Your task to perform on an android device: Do I have any events tomorrow? Image 0: 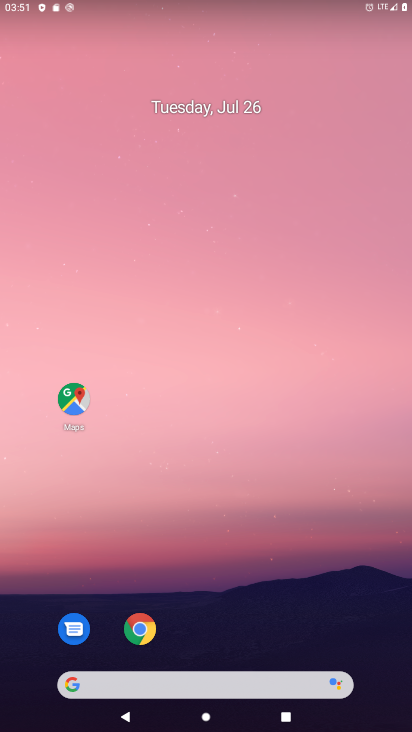
Step 0: drag from (214, 616) to (237, 0)
Your task to perform on an android device: Do I have any events tomorrow? Image 1: 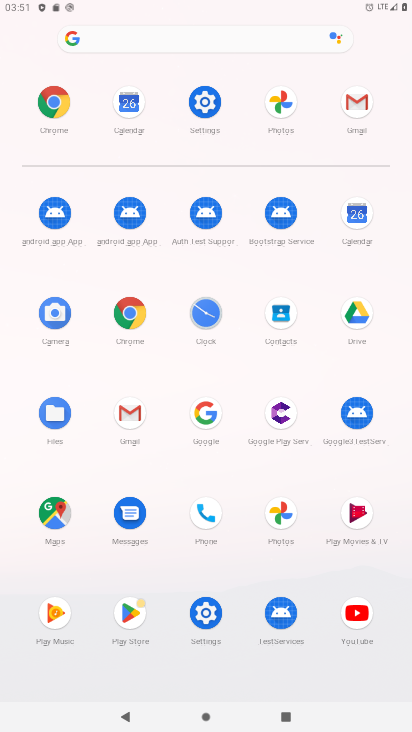
Step 1: click (357, 217)
Your task to perform on an android device: Do I have any events tomorrow? Image 2: 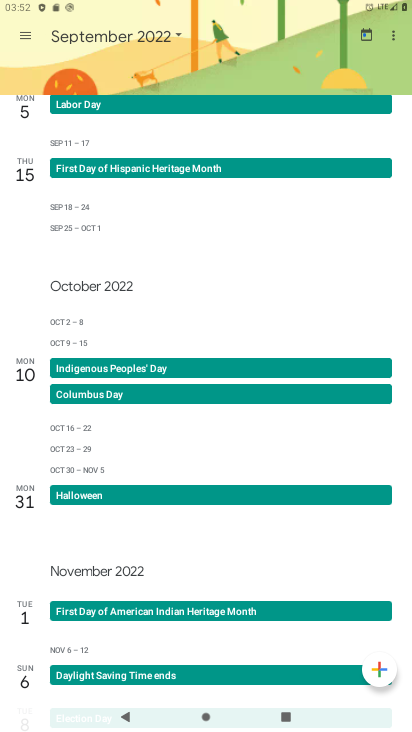
Step 2: click (113, 35)
Your task to perform on an android device: Do I have any events tomorrow? Image 3: 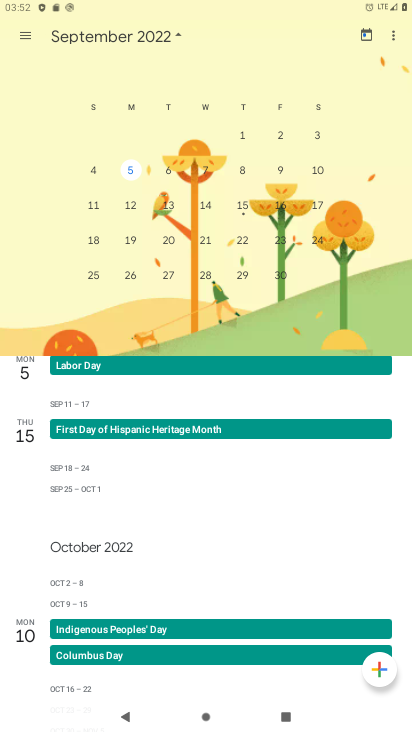
Step 3: drag from (7, 221) to (391, 238)
Your task to perform on an android device: Do I have any events tomorrow? Image 4: 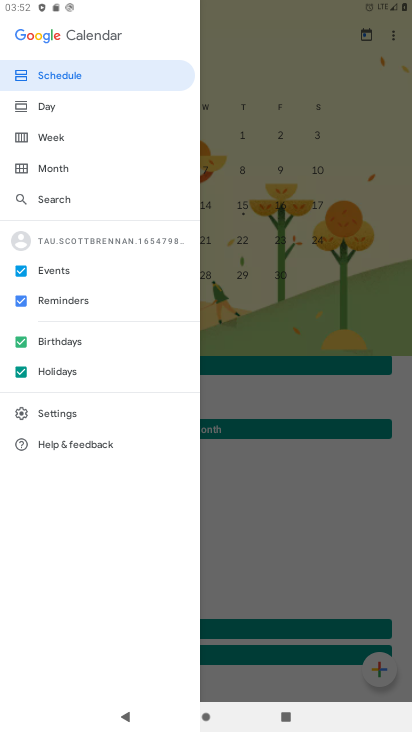
Step 4: click (255, 60)
Your task to perform on an android device: Do I have any events tomorrow? Image 5: 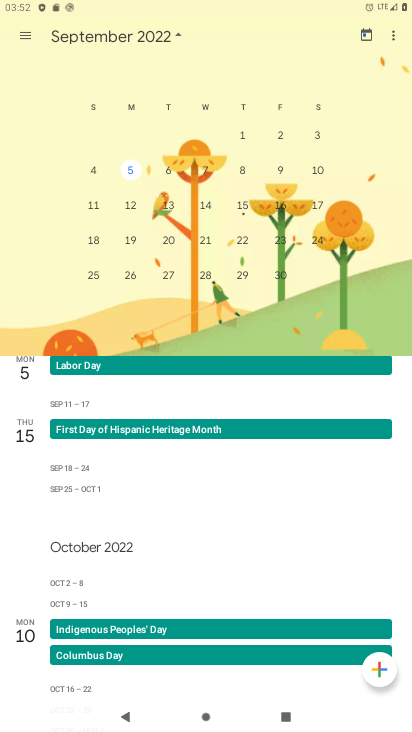
Step 5: drag from (126, 207) to (374, 214)
Your task to perform on an android device: Do I have any events tomorrow? Image 6: 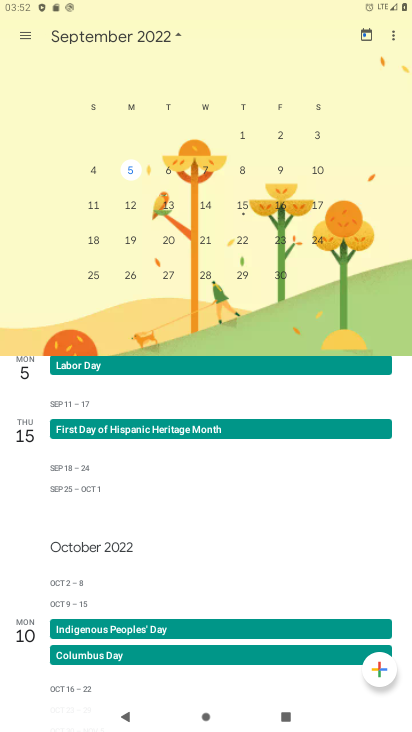
Step 6: drag from (85, 209) to (392, 246)
Your task to perform on an android device: Do I have any events tomorrow? Image 7: 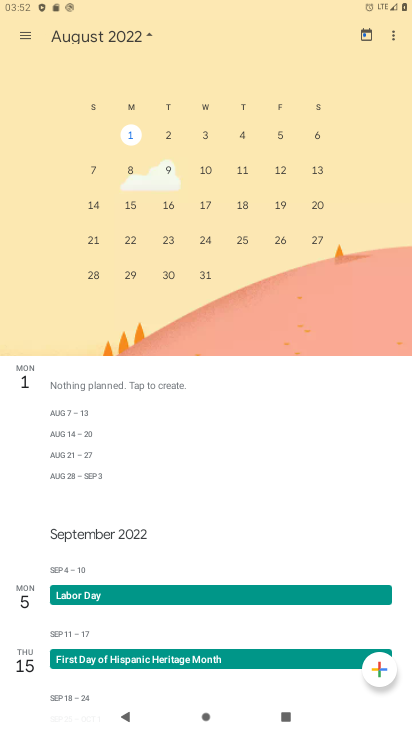
Step 7: drag from (58, 209) to (403, 236)
Your task to perform on an android device: Do I have any events tomorrow? Image 8: 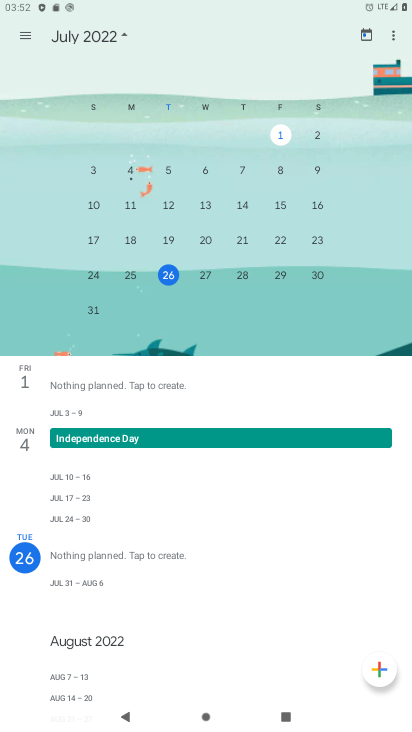
Step 8: click (200, 272)
Your task to perform on an android device: Do I have any events tomorrow? Image 9: 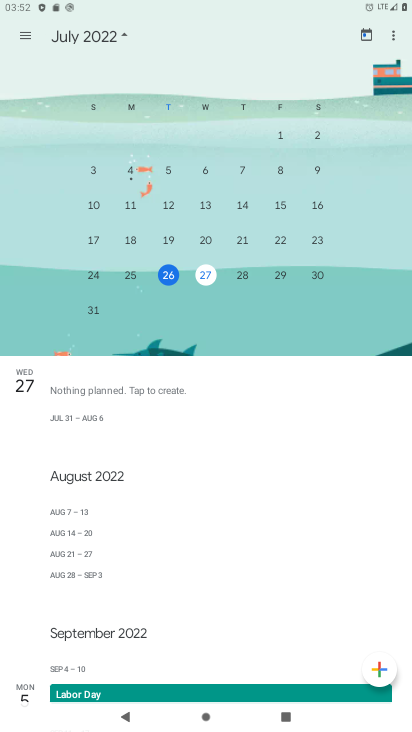
Step 9: task complete